Your task to perform on an android device: Go to Android settings Image 0: 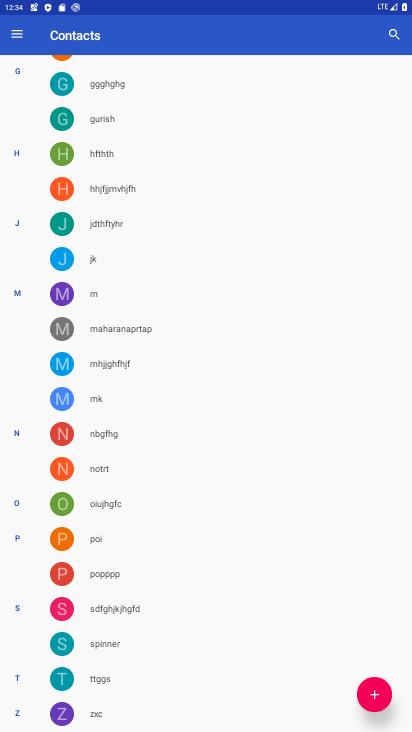
Step 0: press home button
Your task to perform on an android device: Go to Android settings Image 1: 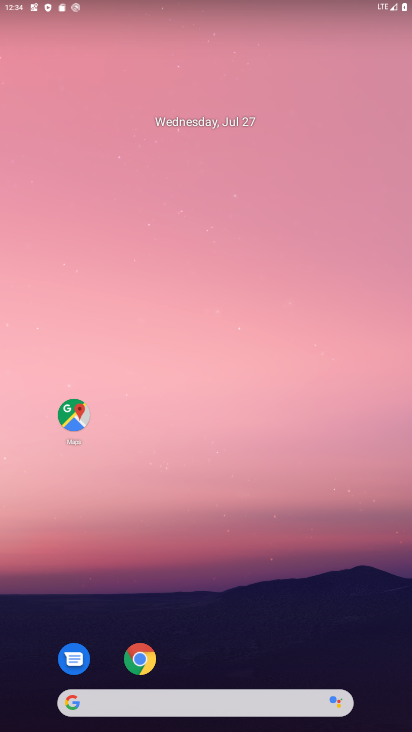
Step 1: drag from (191, 669) to (236, 356)
Your task to perform on an android device: Go to Android settings Image 2: 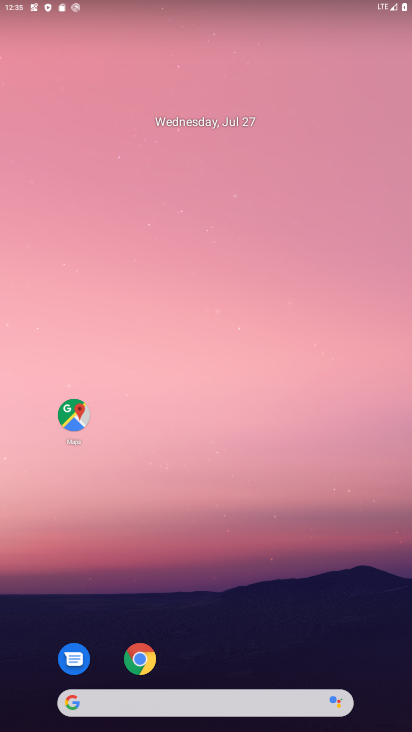
Step 2: drag from (219, 644) to (337, 156)
Your task to perform on an android device: Go to Android settings Image 3: 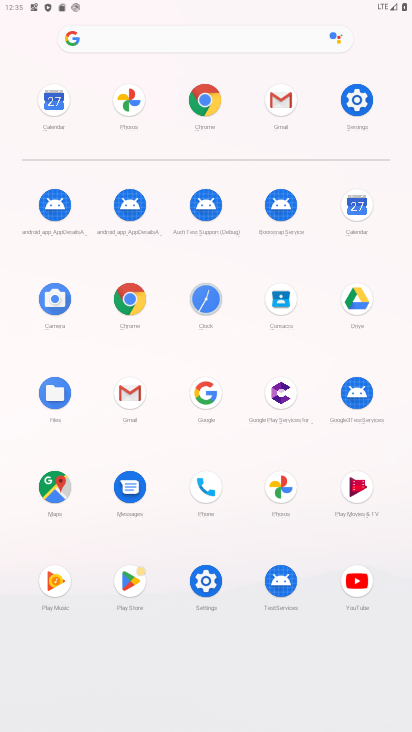
Step 3: click (227, 585)
Your task to perform on an android device: Go to Android settings Image 4: 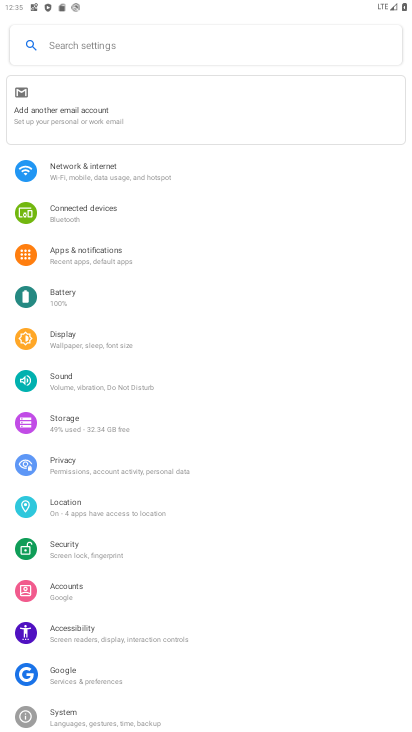
Step 4: task complete